Your task to perform on an android device: open app "Airtel Thanks" (install if not already installed) Image 0: 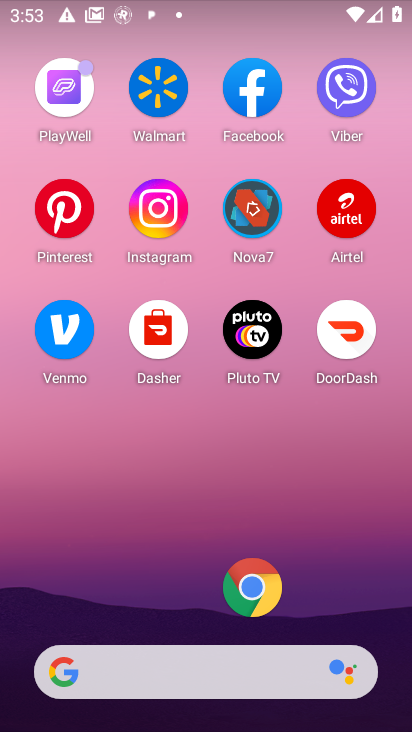
Step 0: drag from (153, 590) to (179, 52)
Your task to perform on an android device: open app "Airtel Thanks" (install if not already installed) Image 1: 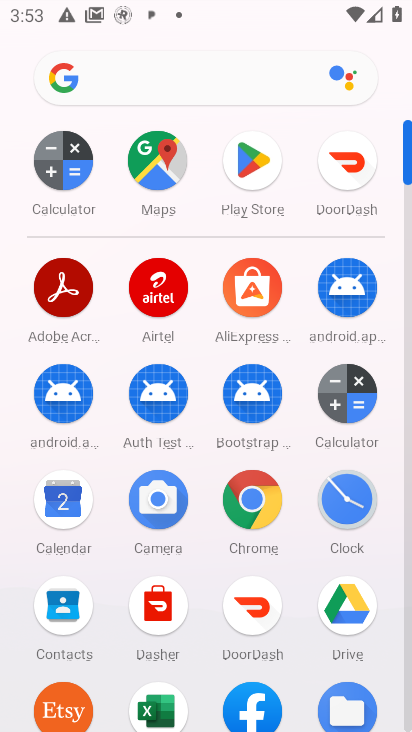
Step 1: click (237, 161)
Your task to perform on an android device: open app "Airtel Thanks" (install if not already installed) Image 2: 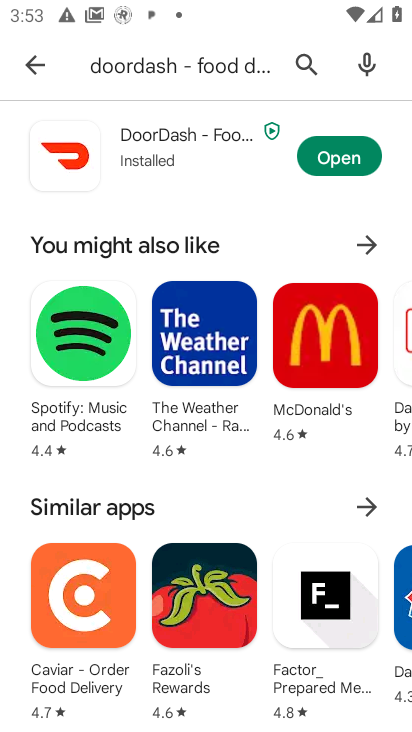
Step 2: click (295, 59)
Your task to perform on an android device: open app "Airtel Thanks" (install if not already installed) Image 3: 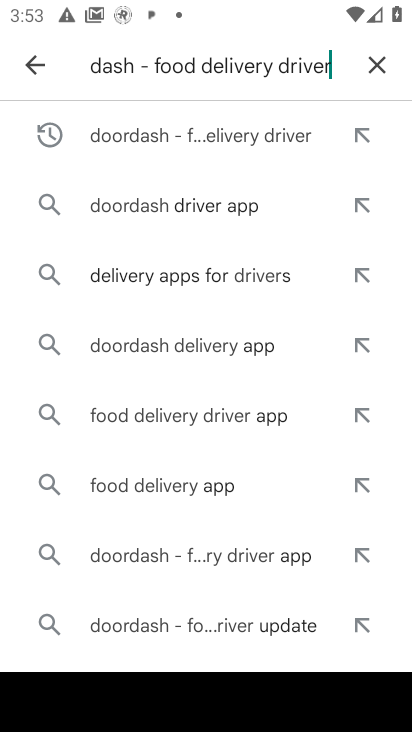
Step 3: click (363, 58)
Your task to perform on an android device: open app "Airtel Thanks" (install if not already installed) Image 4: 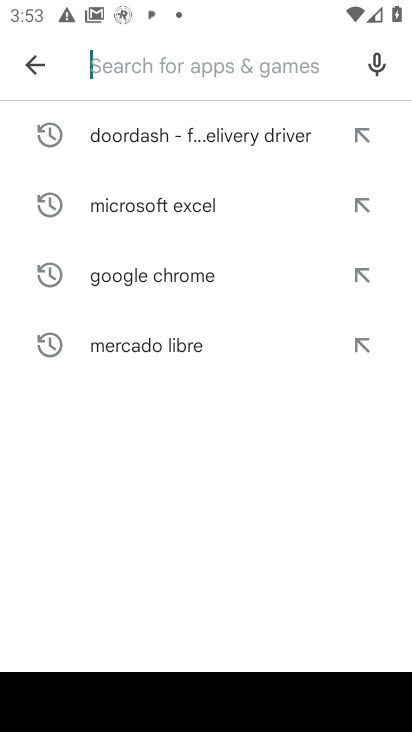
Step 4: type "Airtel Thanks"
Your task to perform on an android device: open app "Airtel Thanks" (install if not already installed) Image 5: 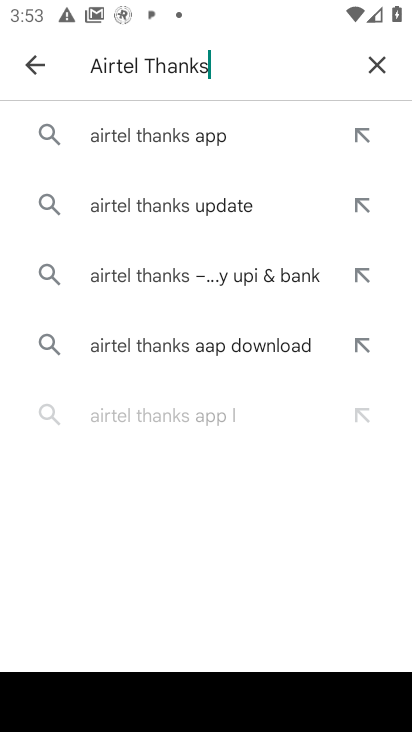
Step 5: type ""
Your task to perform on an android device: open app "Airtel Thanks" (install if not already installed) Image 6: 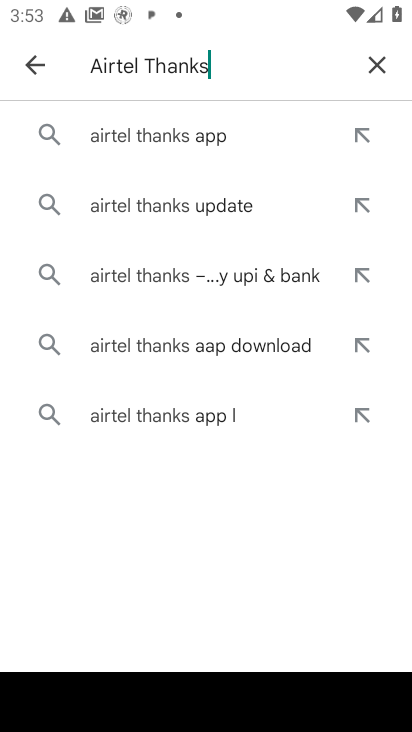
Step 6: click (184, 148)
Your task to perform on an android device: open app "Airtel Thanks" (install if not already installed) Image 7: 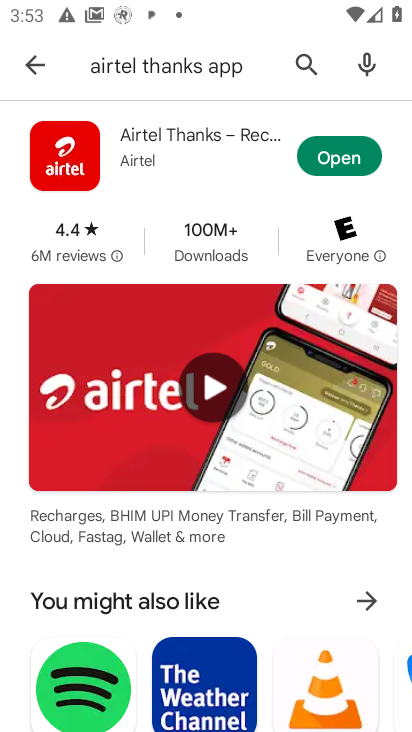
Step 7: click (312, 154)
Your task to perform on an android device: open app "Airtel Thanks" (install if not already installed) Image 8: 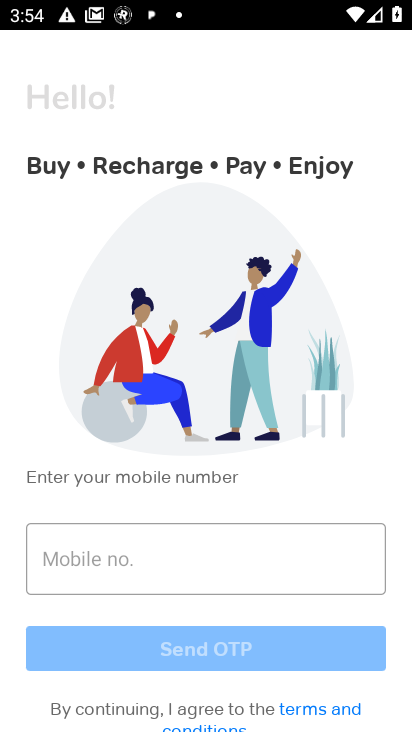
Step 8: task complete